Your task to perform on an android device: Add macbook air to the cart on costco Image 0: 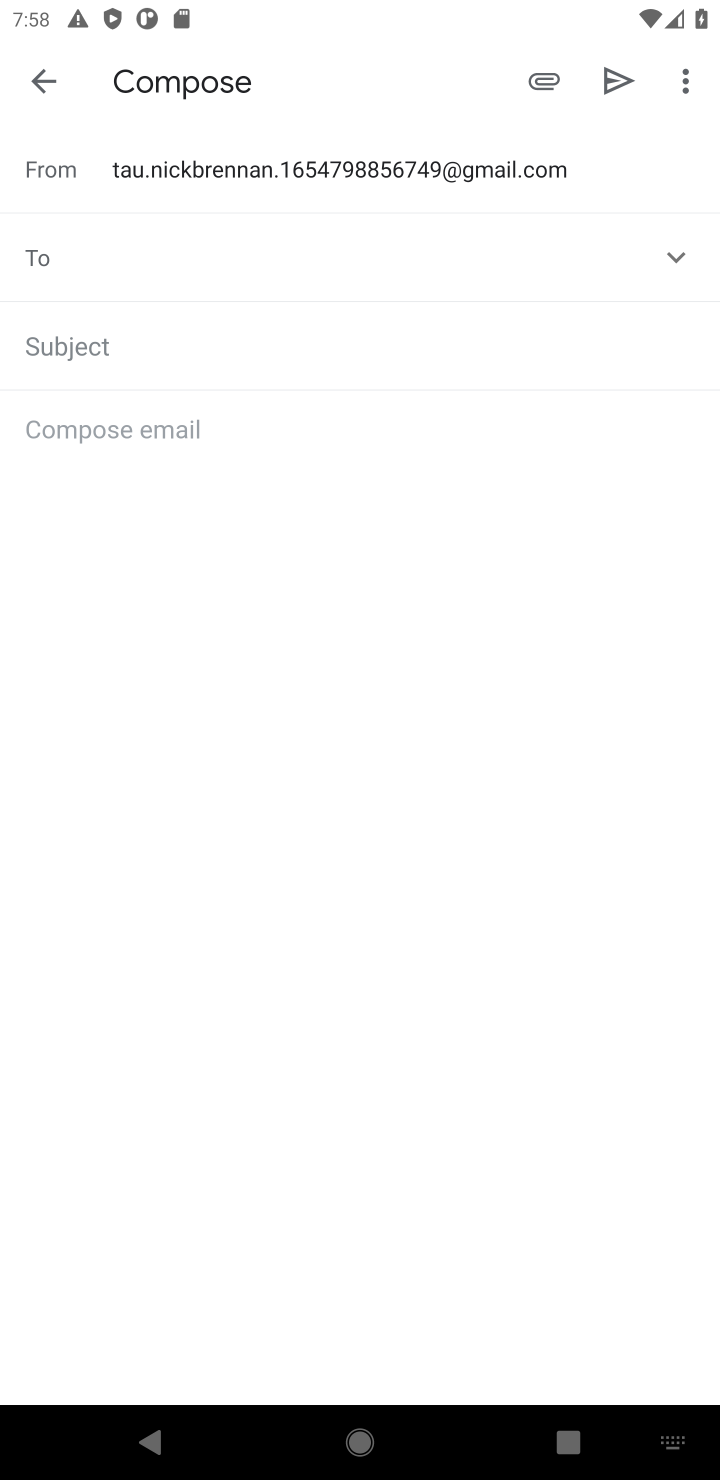
Step 0: press home button
Your task to perform on an android device: Add macbook air to the cart on costco Image 1: 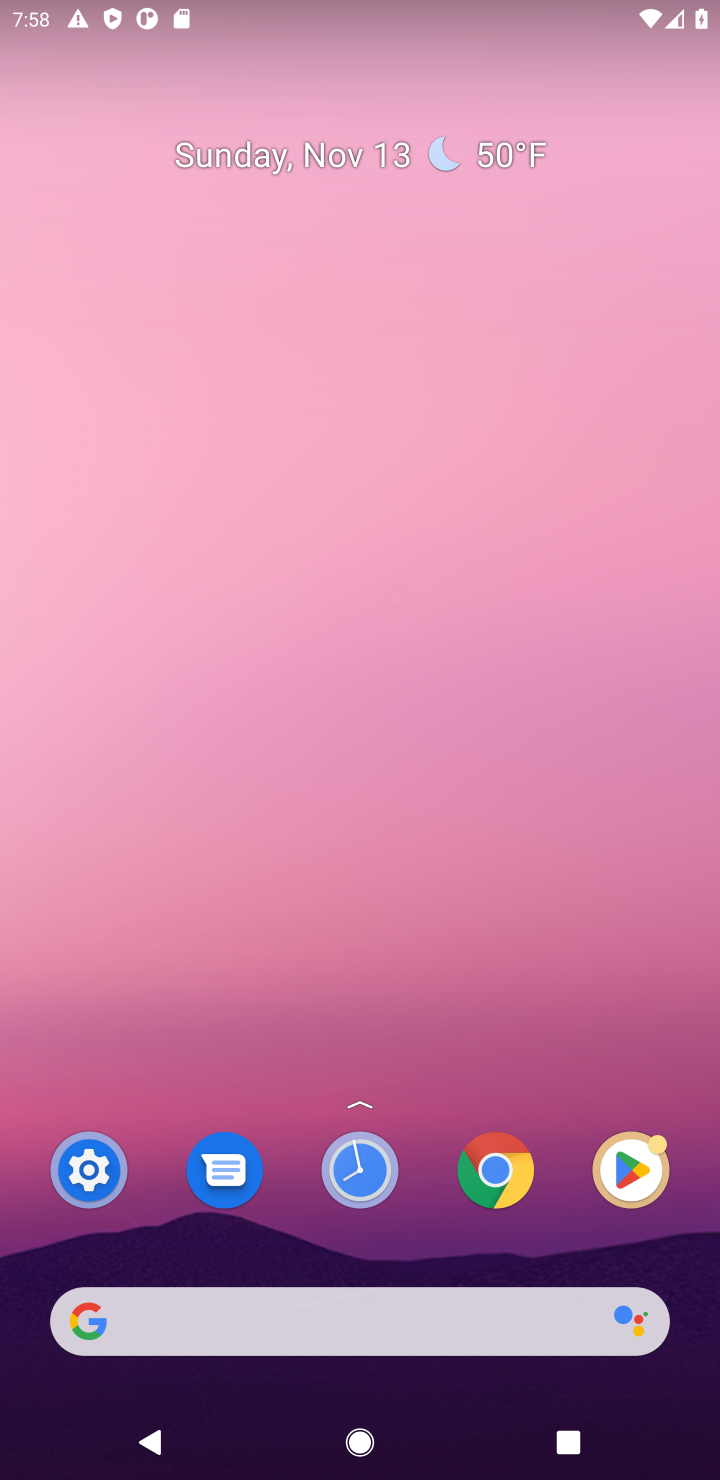
Step 1: click (407, 1325)
Your task to perform on an android device: Add macbook air to the cart on costco Image 2: 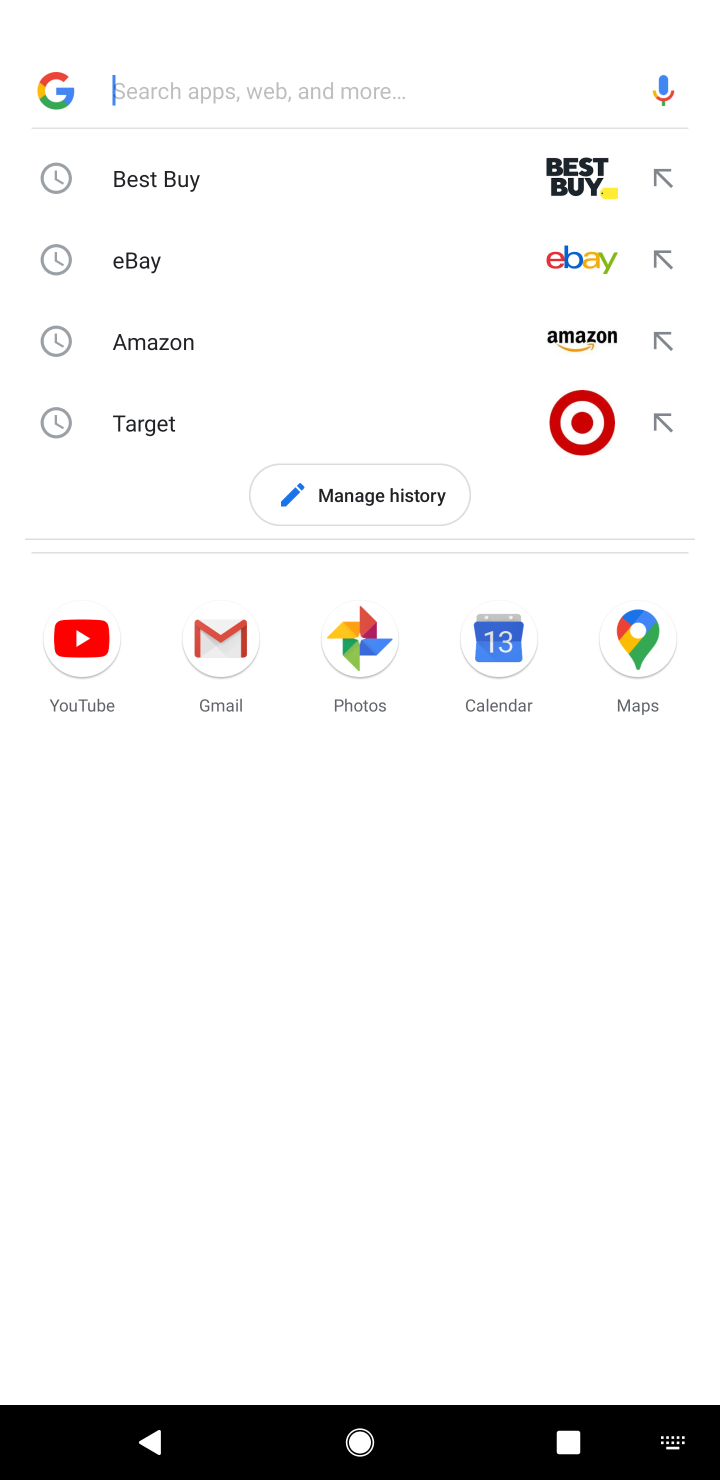
Step 2: type "costco"
Your task to perform on an android device: Add macbook air to the cart on costco Image 3: 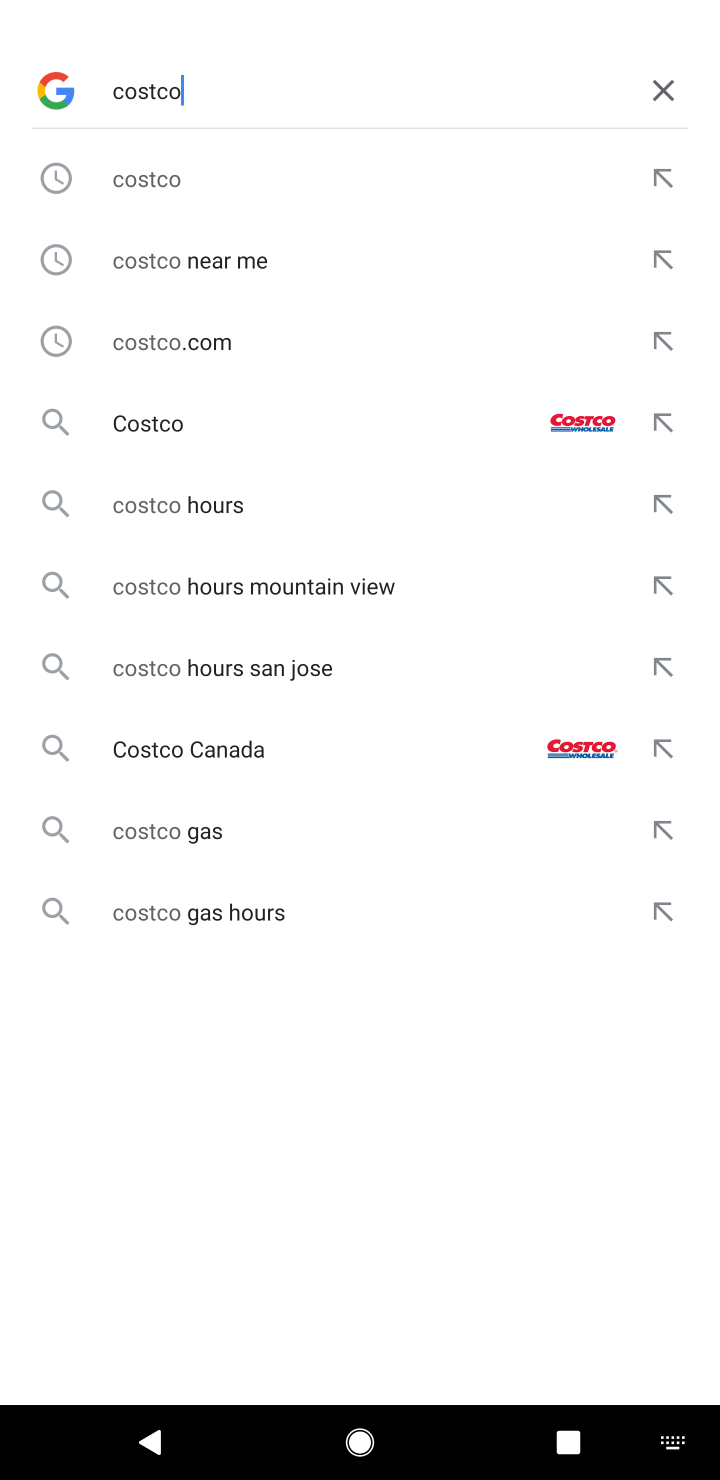
Step 3: click (402, 431)
Your task to perform on an android device: Add macbook air to the cart on costco Image 4: 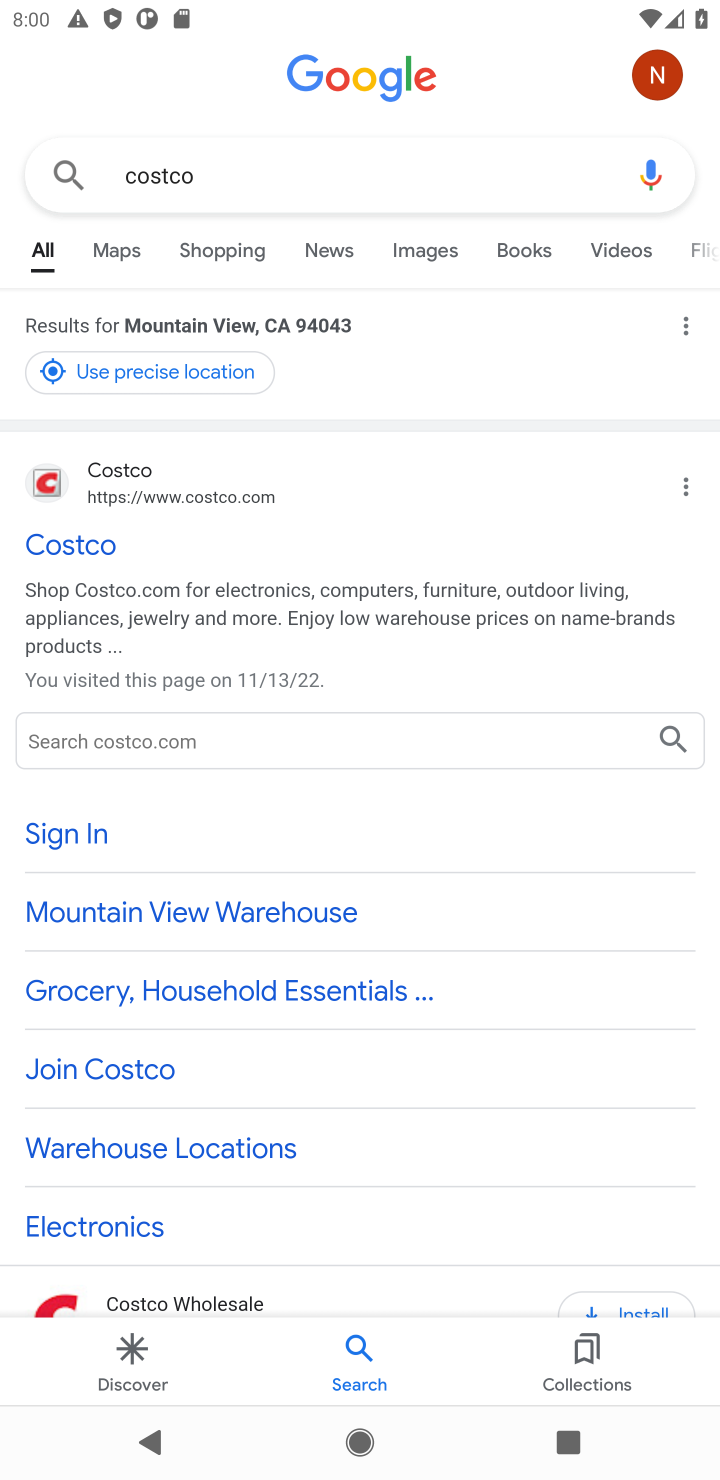
Step 4: click (202, 531)
Your task to perform on an android device: Add macbook air to the cart on costco Image 5: 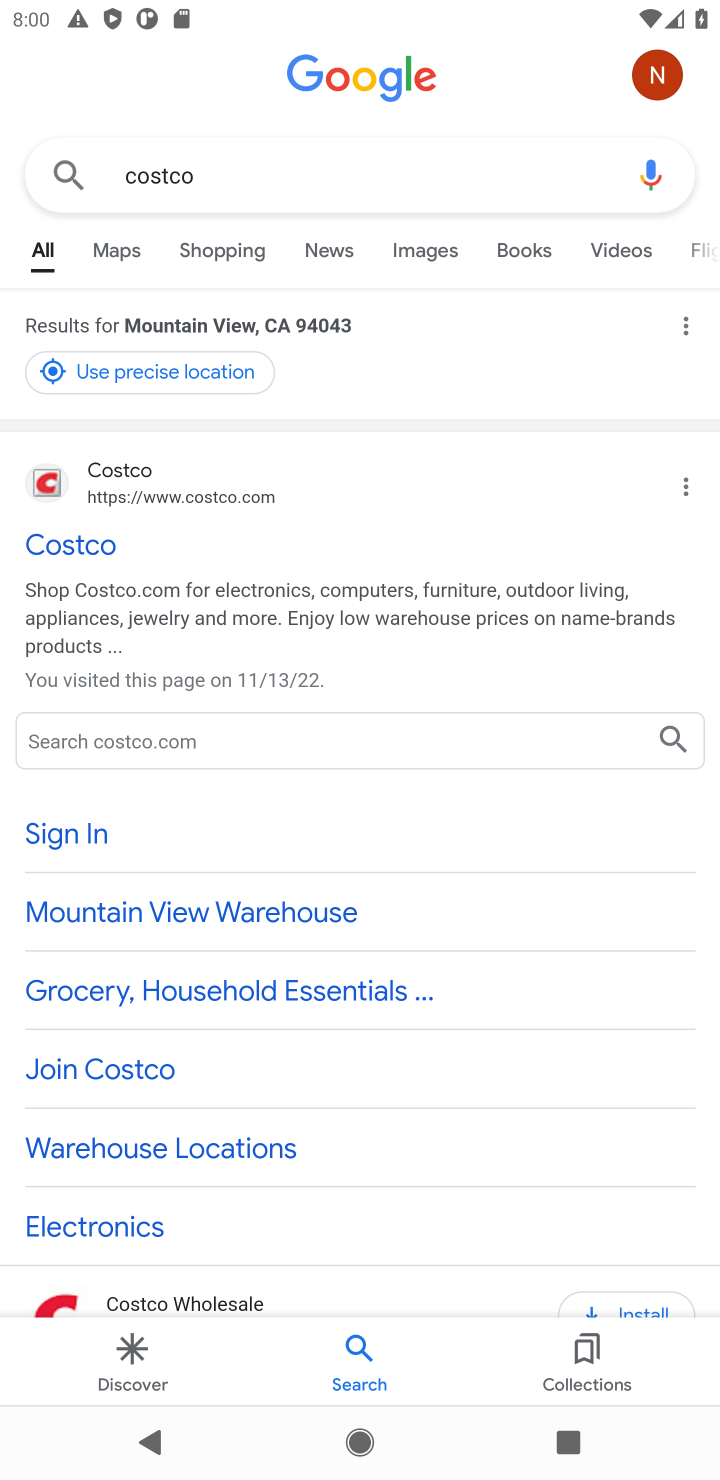
Step 5: task complete